Your task to perform on an android device: What is the news today? Image 0: 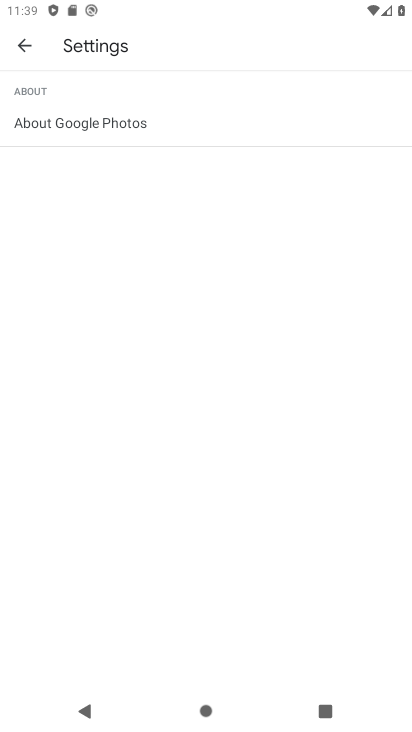
Step 0: press home button
Your task to perform on an android device: What is the news today? Image 1: 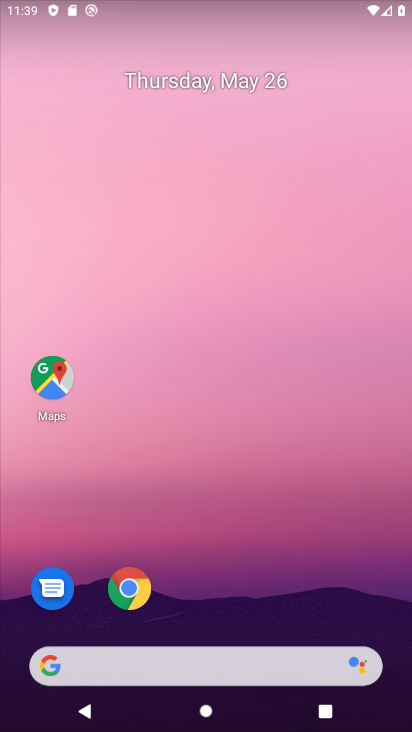
Step 1: task complete